Your task to perform on an android device: Open notification settings Image 0: 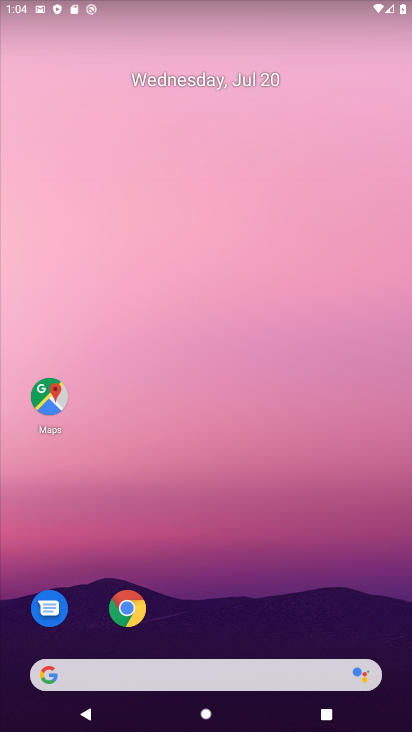
Step 0: drag from (226, 644) to (268, 91)
Your task to perform on an android device: Open notification settings Image 1: 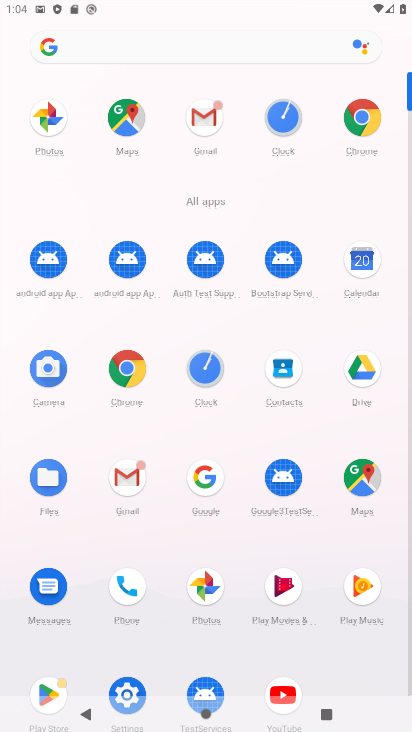
Step 1: click (132, 687)
Your task to perform on an android device: Open notification settings Image 2: 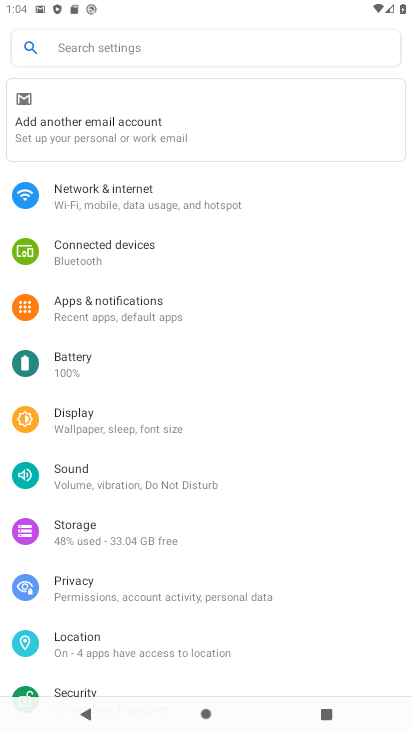
Step 2: click (174, 308)
Your task to perform on an android device: Open notification settings Image 3: 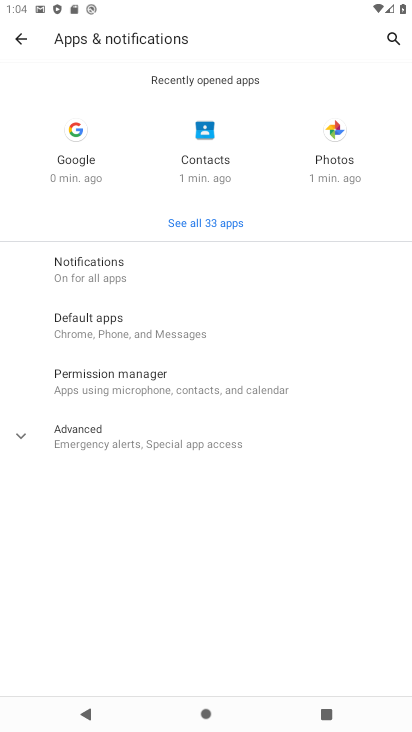
Step 3: click (76, 250)
Your task to perform on an android device: Open notification settings Image 4: 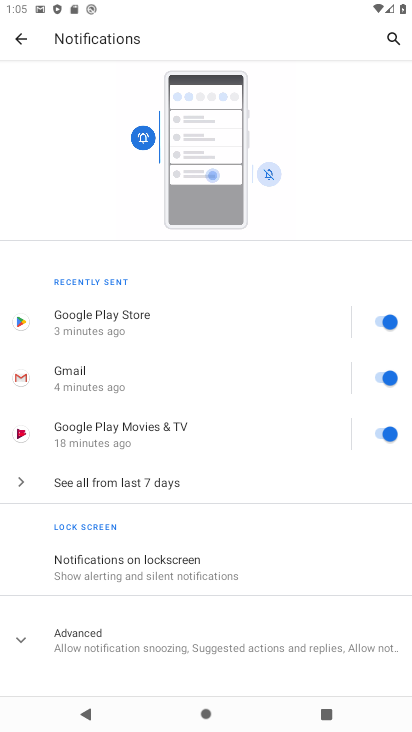
Step 4: task complete